Your task to perform on an android device: Find coffee shops on Maps Image 0: 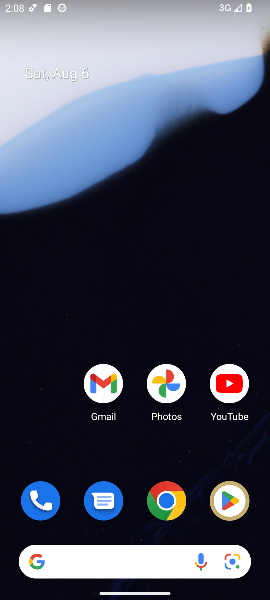
Step 0: press home button
Your task to perform on an android device: Find coffee shops on Maps Image 1: 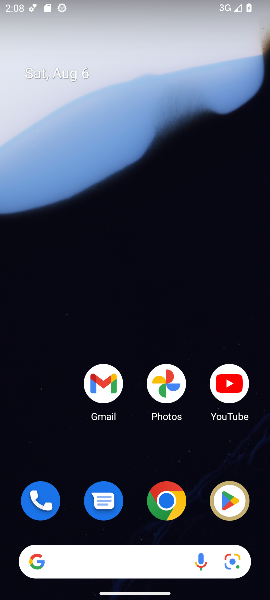
Step 1: drag from (202, 519) to (229, 85)
Your task to perform on an android device: Find coffee shops on Maps Image 2: 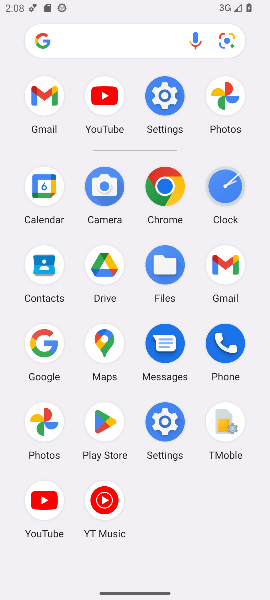
Step 2: click (102, 344)
Your task to perform on an android device: Find coffee shops on Maps Image 3: 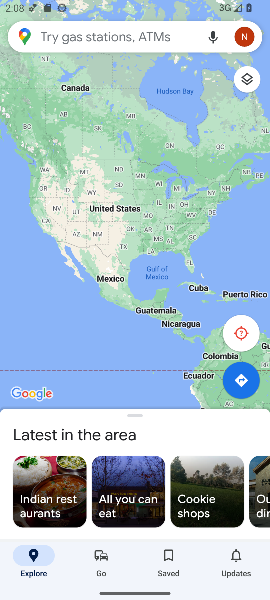
Step 3: click (94, 34)
Your task to perform on an android device: Find coffee shops on Maps Image 4: 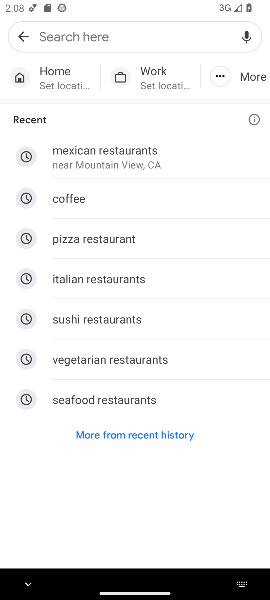
Step 4: type "coffee shops "
Your task to perform on an android device: Find coffee shops on Maps Image 5: 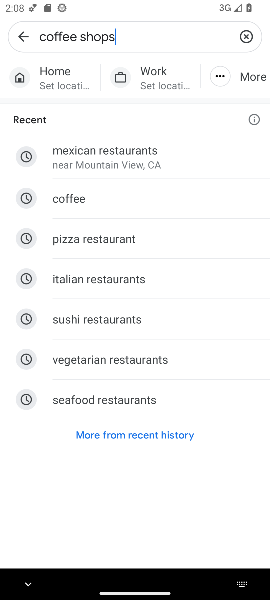
Step 5: press enter
Your task to perform on an android device: Find coffee shops on Maps Image 6: 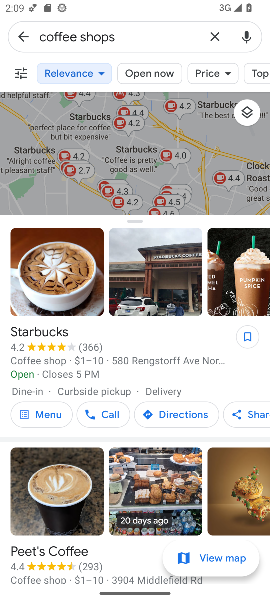
Step 6: task complete